Your task to perform on an android device: open app "Microsoft Excel" (install if not already installed) Image 0: 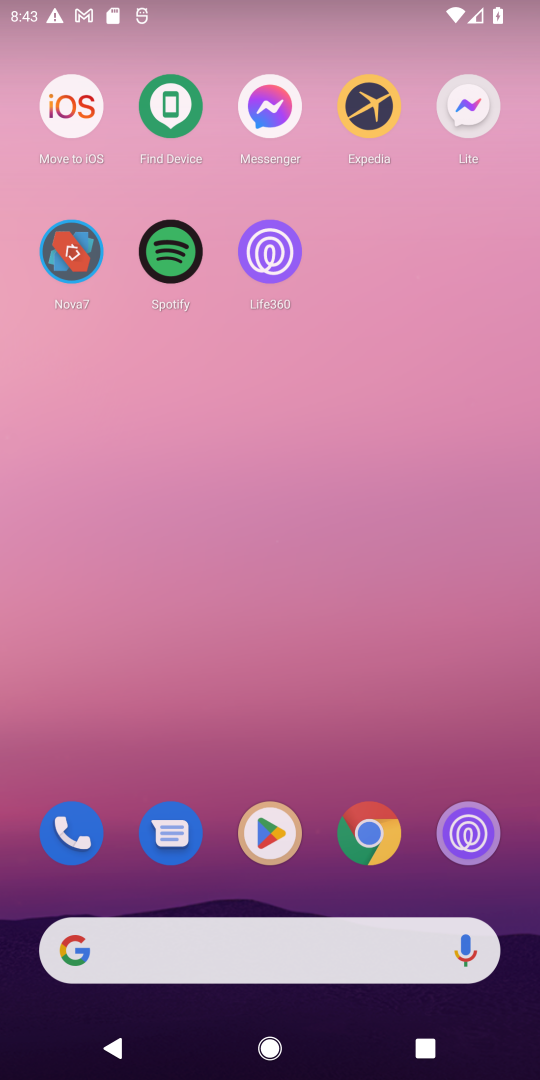
Step 0: press home button
Your task to perform on an android device: open app "Microsoft Excel" (install if not already installed) Image 1: 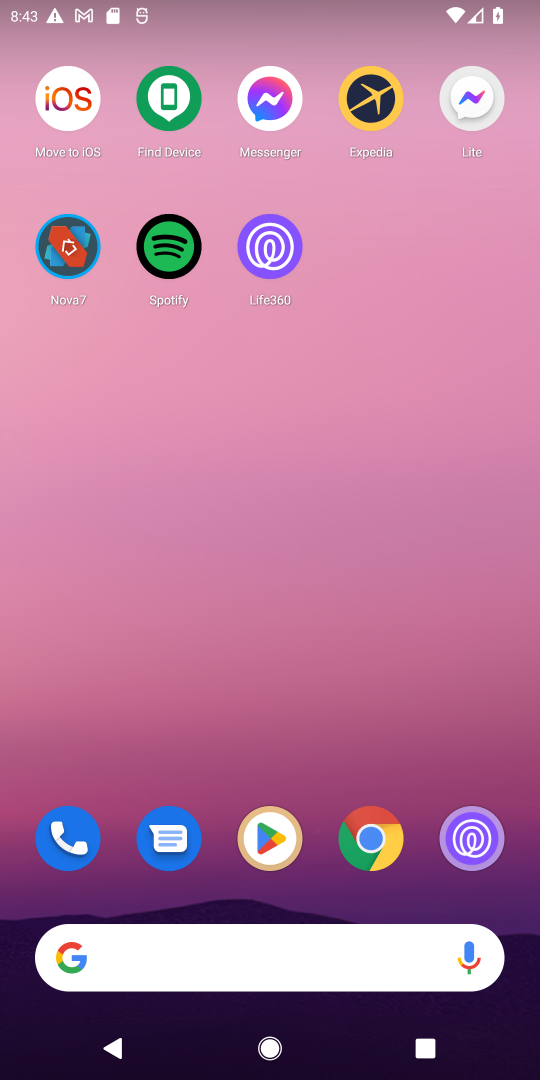
Step 1: click (262, 828)
Your task to perform on an android device: open app "Microsoft Excel" (install if not already installed) Image 2: 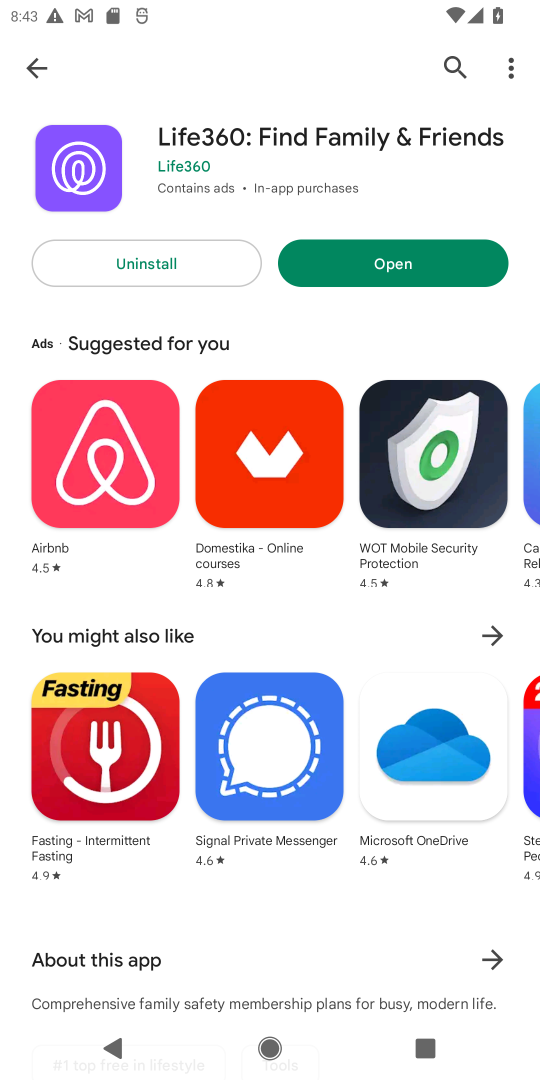
Step 2: click (439, 53)
Your task to perform on an android device: open app "Microsoft Excel" (install if not already installed) Image 3: 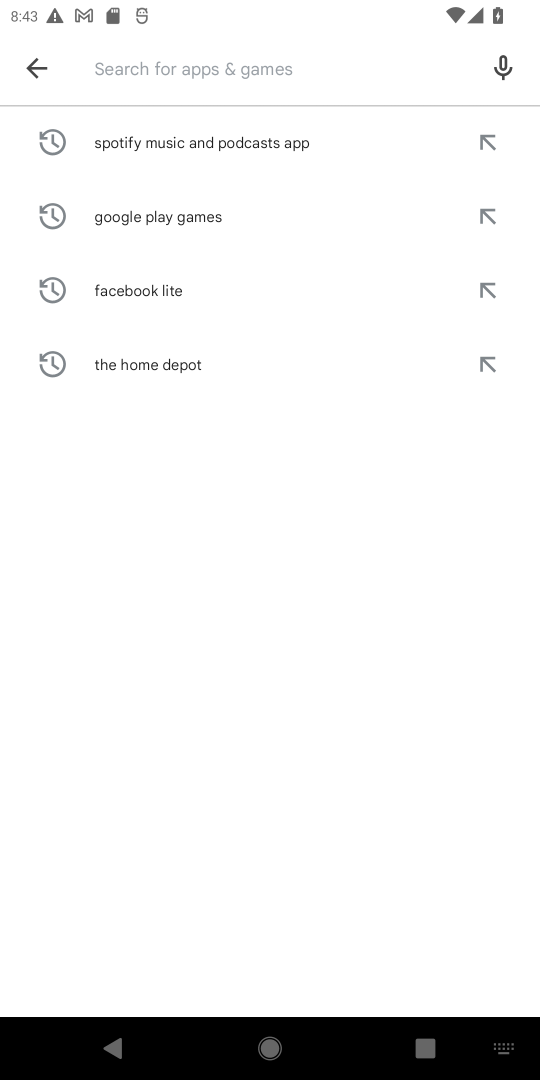
Step 3: type "Microsoft Excel"
Your task to perform on an android device: open app "Microsoft Excel" (install if not already installed) Image 4: 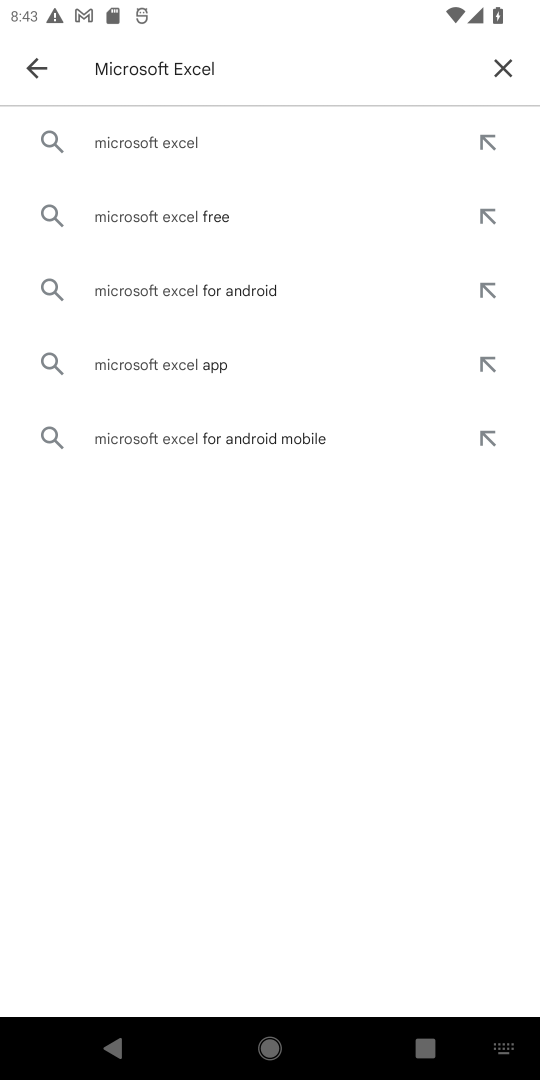
Step 4: click (215, 137)
Your task to perform on an android device: open app "Microsoft Excel" (install if not already installed) Image 5: 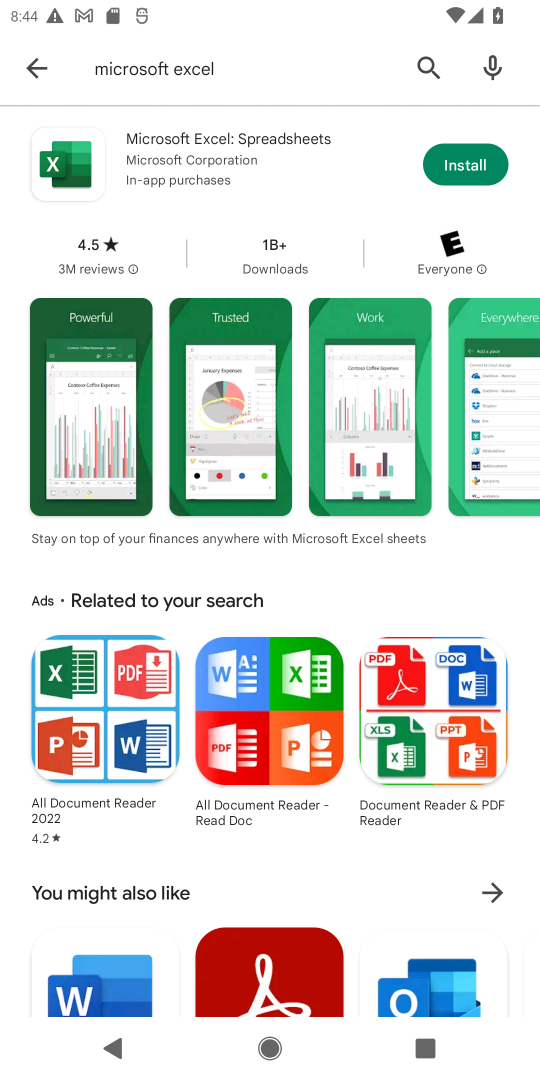
Step 5: click (462, 165)
Your task to perform on an android device: open app "Microsoft Excel" (install if not already installed) Image 6: 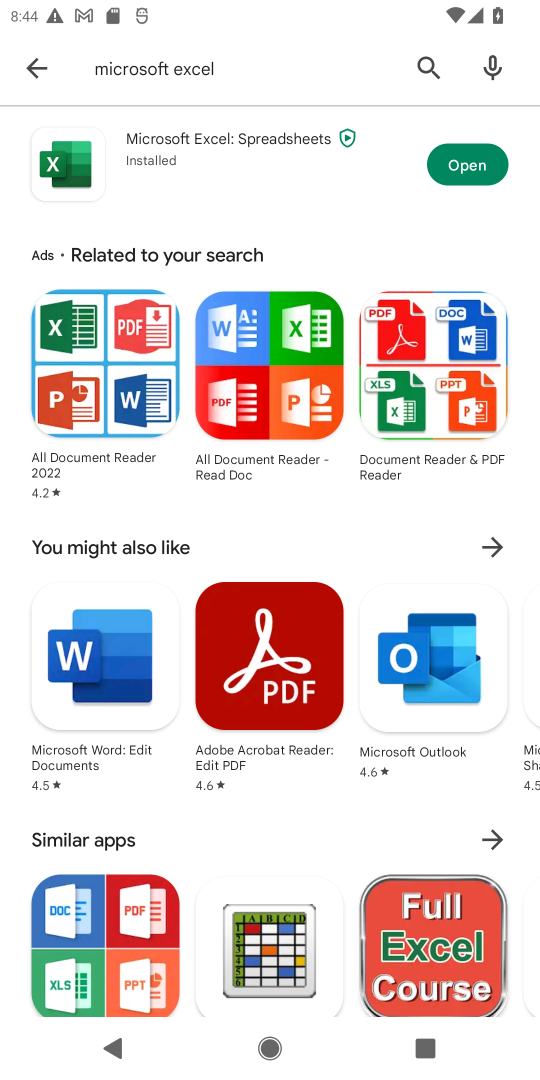
Step 6: click (474, 157)
Your task to perform on an android device: open app "Microsoft Excel" (install if not already installed) Image 7: 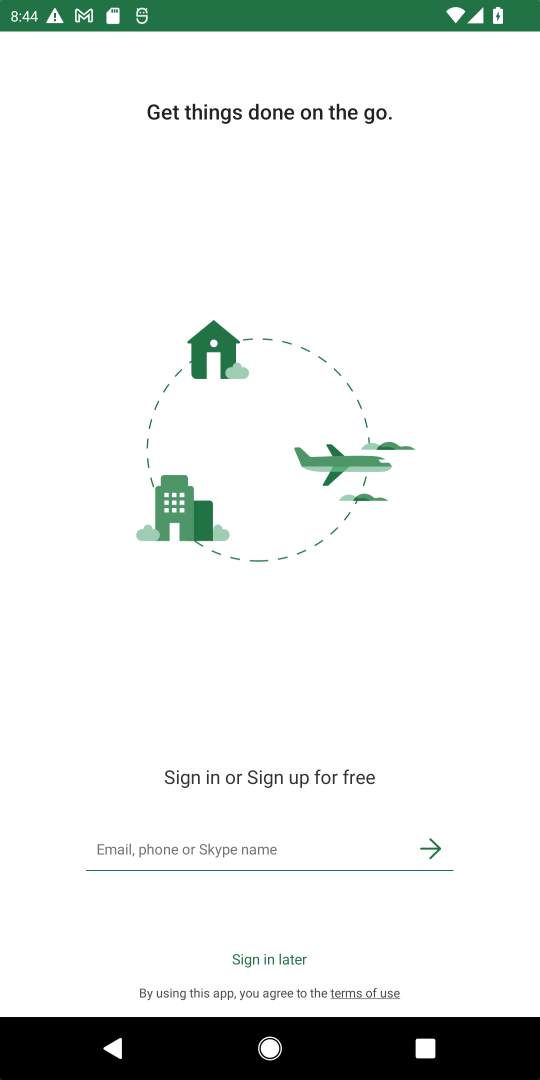
Step 7: click (284, 951)
Your task to perform on an android device: open app "Microsoft Excel" (install if not already installed) Image 8: 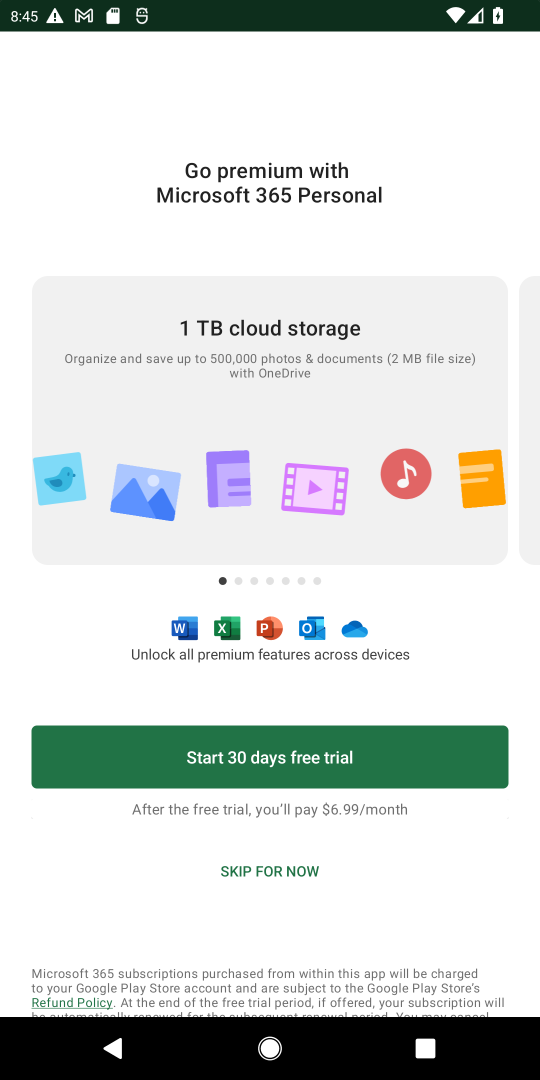
Step 8: task complete